Your task to perform on an android device: delete a single message in the gmail app Image 0: 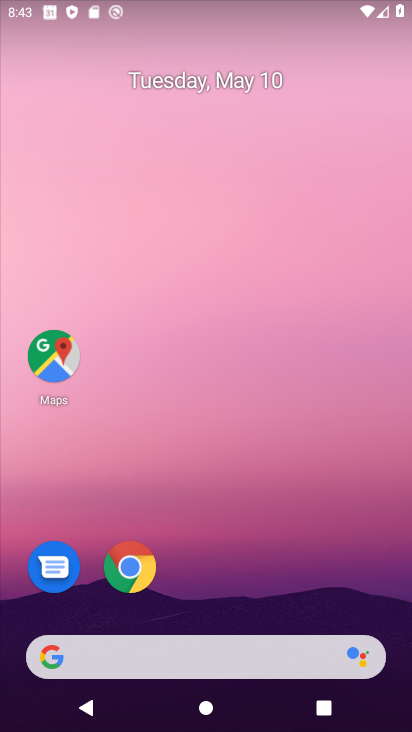
Step 0: drag from (345, 477) to (360, 125)
Your task to perform on an android device: delete a single message in the gmail app Image 1: 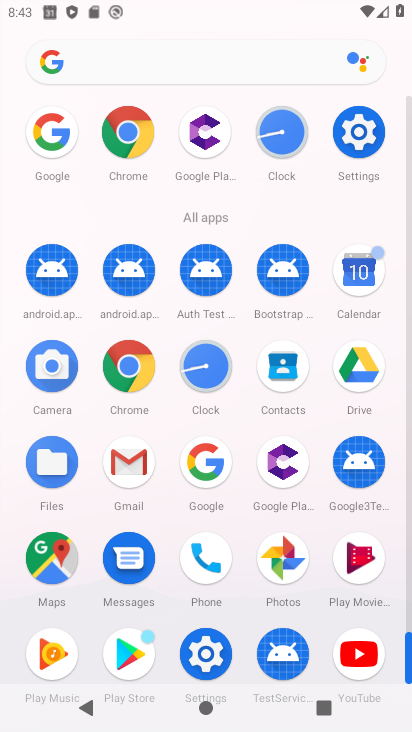
Step 1: click (131, 468)
Your task to perform on an android device: delete a single message in the gmail app Image 2: 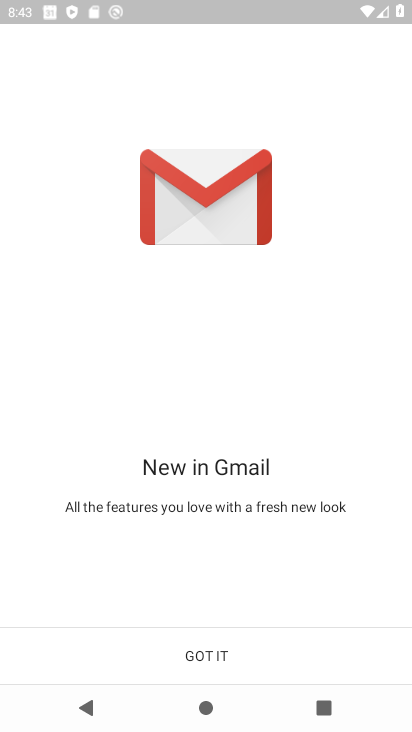
Step 2: click (209, 657)
Your task to perform on an android device: delete a single message in the gmail app Image 3: 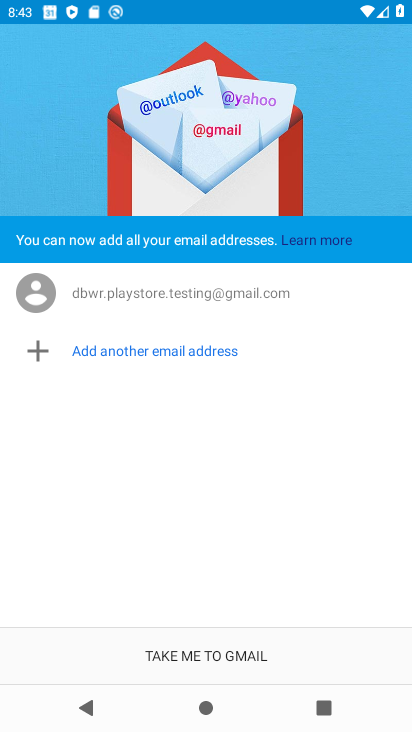
Step 3: click (187, 649)
Your task to perform on an android device: delete a single message in the gmail app Image 4: 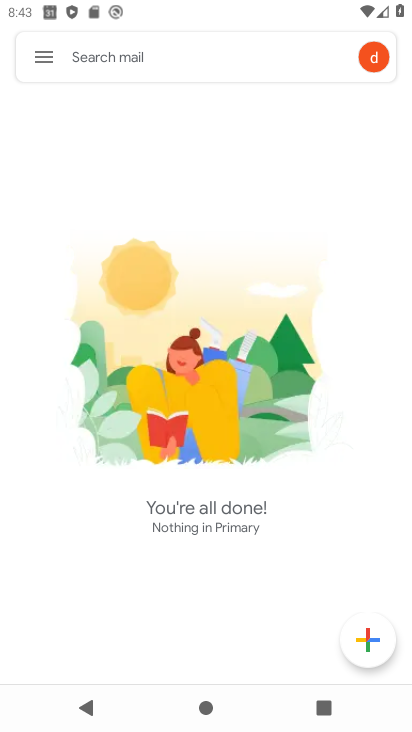
Step 4: click (27, 58)
Your task to perform on an android device: delete a single message in the gmail app Image 5: 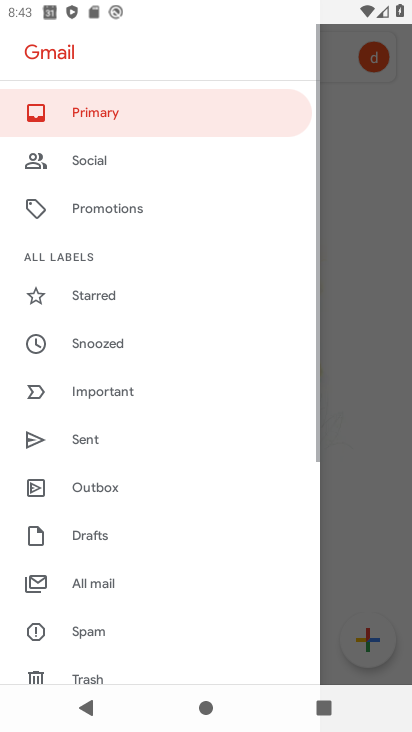
Step 5: drag from (108, 605) to (164, 117)
Your task to perform on an android device: delete a single message in the gmail app Image 6: 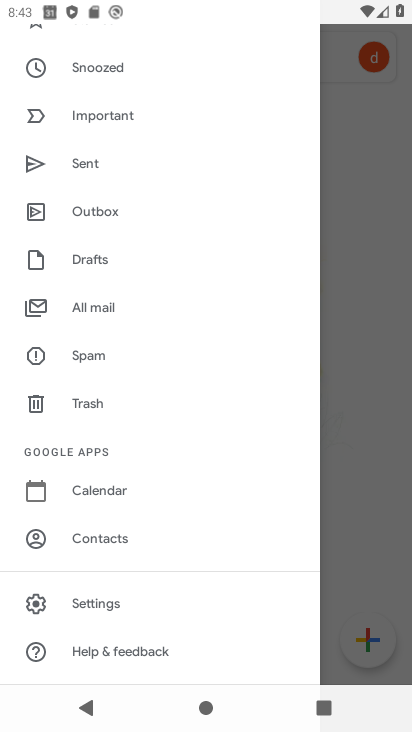
Step 6: drag from (199, 565) to (120, 145)
Your task to perform on an android device: delete a single message in the gmail app Image 7: 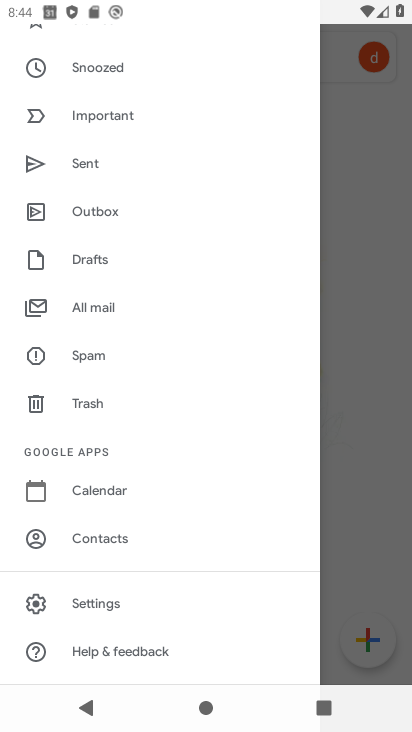
Step 7: drag from (141, 181) to (137, 620)
Your task to perform on an android device: delete a single message in the gmail app Image 8: 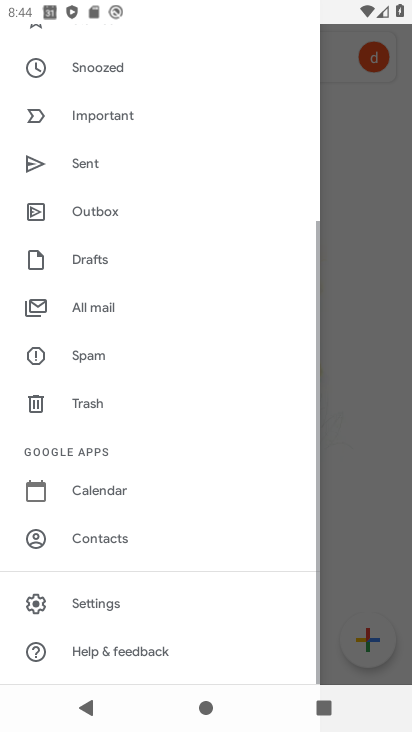
Step 8: drag from (192, 258) to (167, 656)
Your task to perform on an android device: delete a single message in the gmail app Image 9: 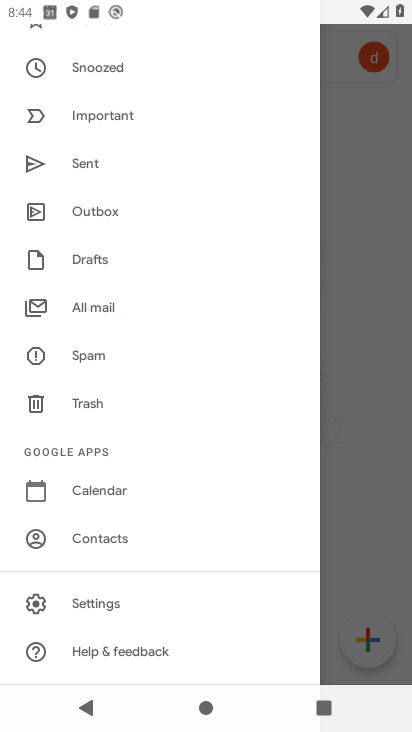
Step 9: drag from (143, 174) to (119, 566)
Your task to perform on an android device: delete a single message in the gmail app Image 10: 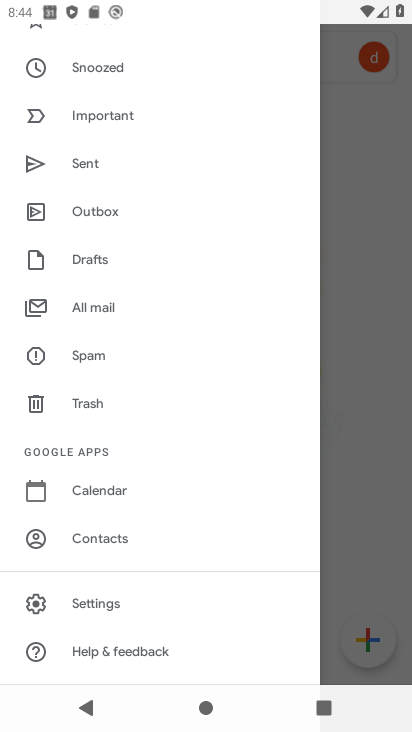
Step 10: drag from (162, 164) to (173, 567)
Your task to perform on an android device: delete a single message in the gmail app Image 11: 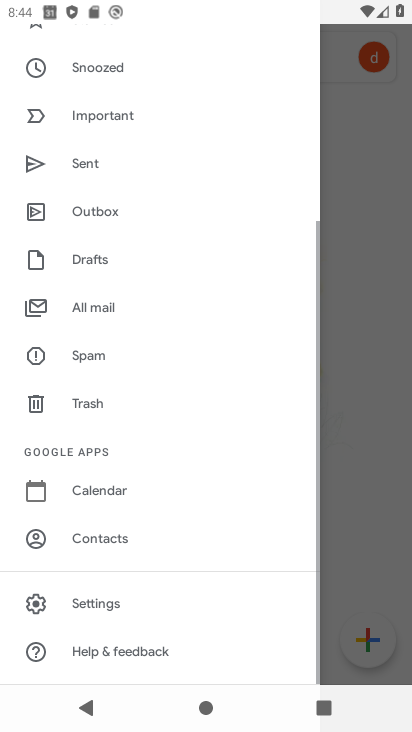
Step 11: drag from (135, 87) to (105, 534)
Your task to perform on an android device: delete a single message in the gmail app Image 12: 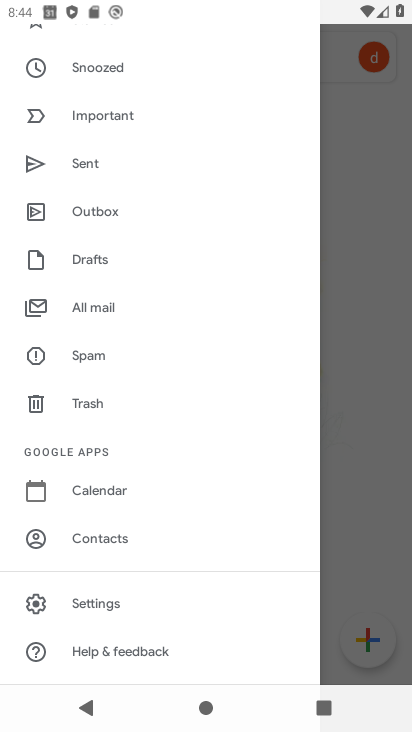
Step 12: drag from (213, 276) to (180, 589)
Your task to perform on an android device: delete a single message in the gmail app Image 13: 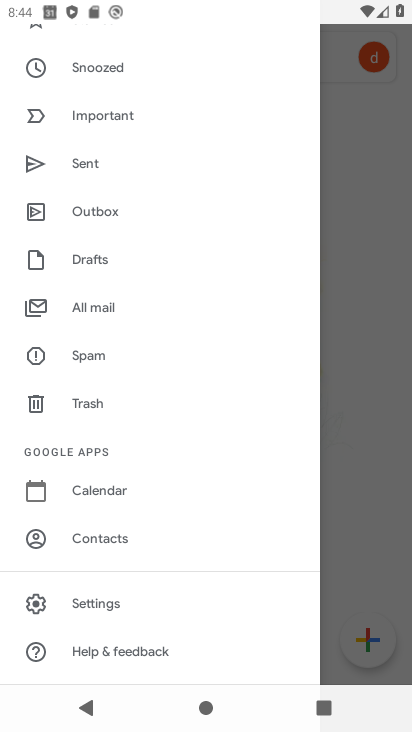
Step 13: drag from (64, 196) to (120, 645)
Your task to perform on an android device: delete a single message in the gmail app Image 14: 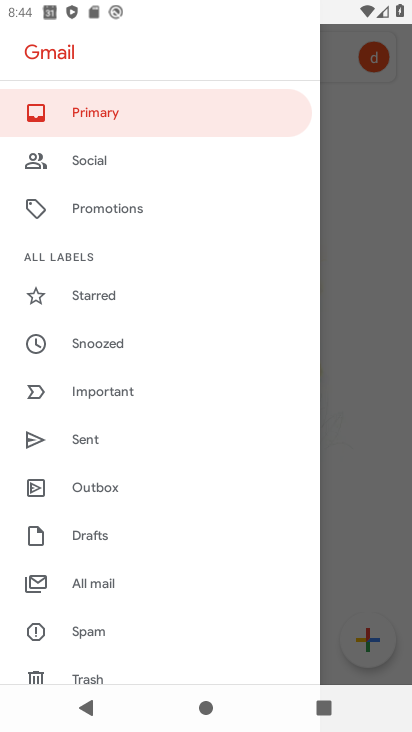
Step 14: click (110, 592)
Your task to perform on an android device: delete a single message in the gmail app Image 15: 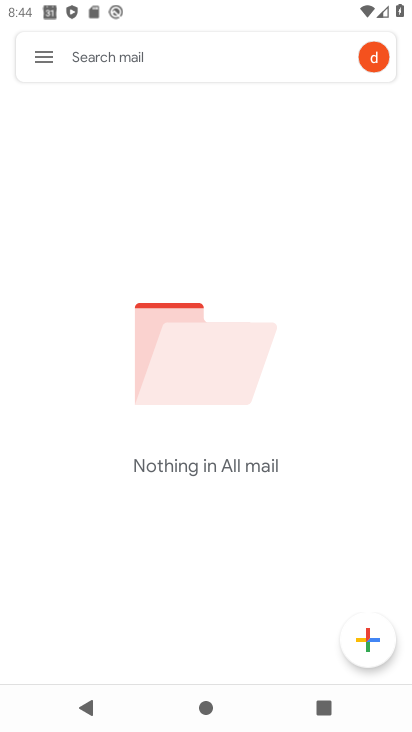
Step 15: task complete